Your task to perform on an android device: Go to notification settings Image 0: 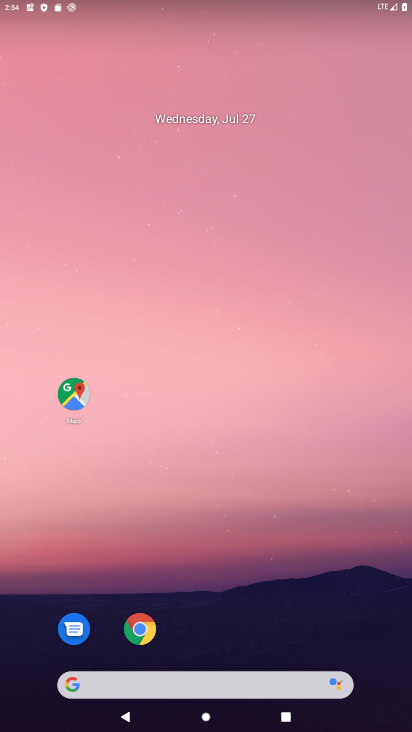
Step 0: drag from (199, 366) to (196, 222)
Your task to perform on an android device: Go to notification settings Image 1: 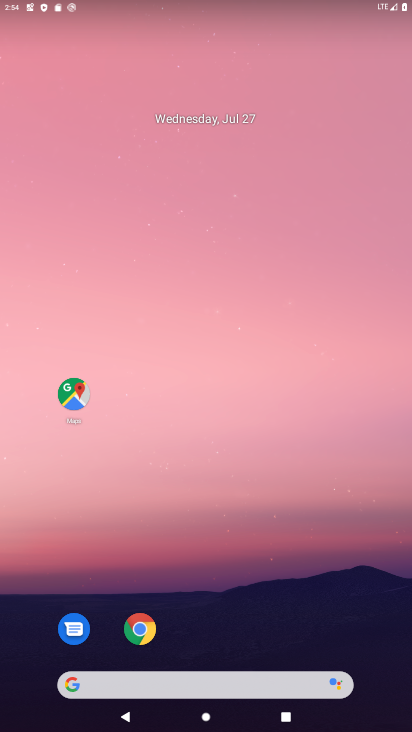
Step 1: drag from (241, 632) to (314, 11)
Your task to perform on an android device: Go to notification settings Image 2: 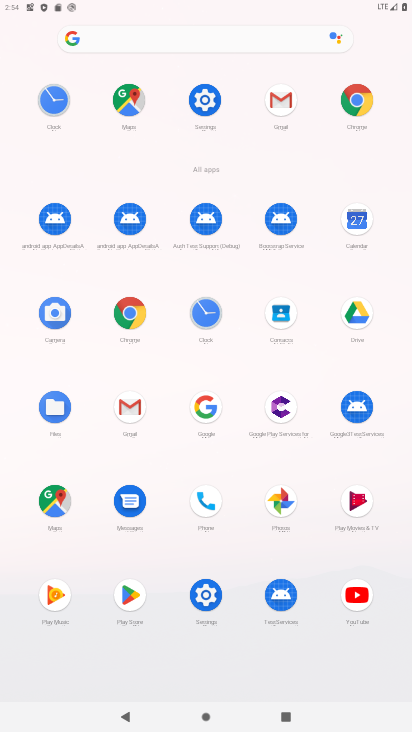
Step 2: click (188, 105)
Your task to perform on an android device: Go to notification settings Image 3: 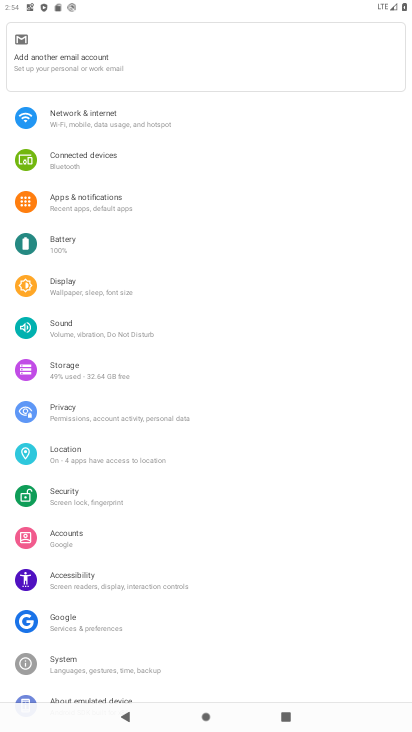
Step 3: click (78, 190)
Your task to perform on an android device: Go to notification settings Image 4: 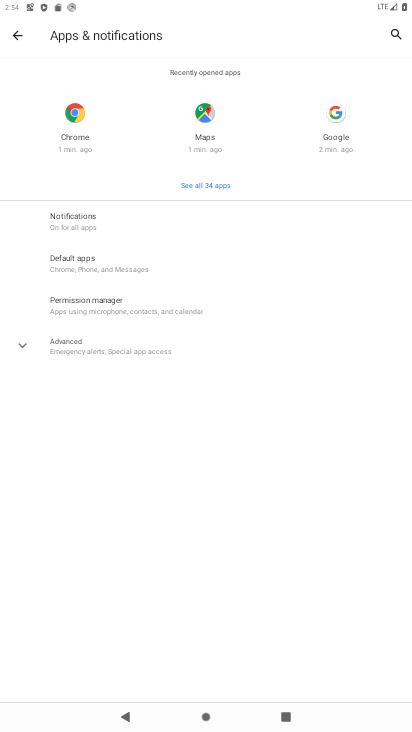
Step 4: task complete